Your task to perform on an android device: turn notification dots off Image 0: 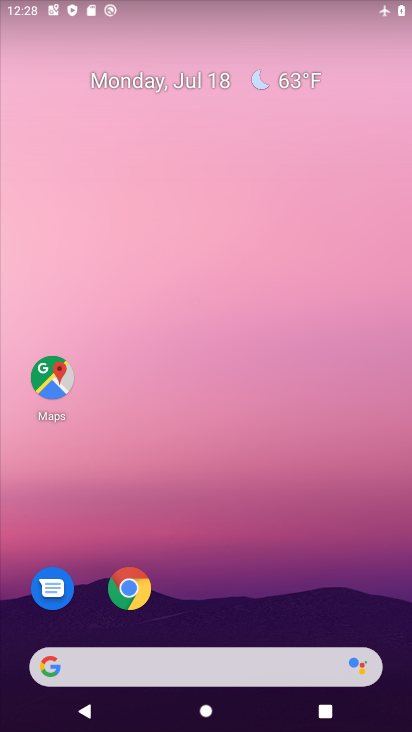
Step 0: drag from (234, 729) to (203, 98)
Your task to perform on an android device: turn notification dots off Image 1: 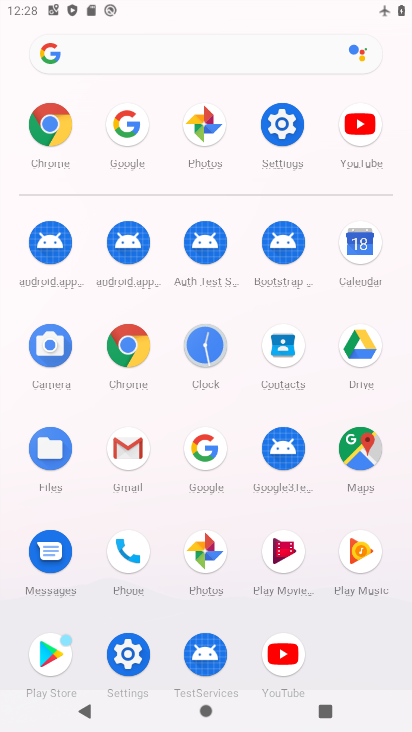
Step 1: click (281, 137)
Your task to perform on an android device: turn notification dots off Image 2: 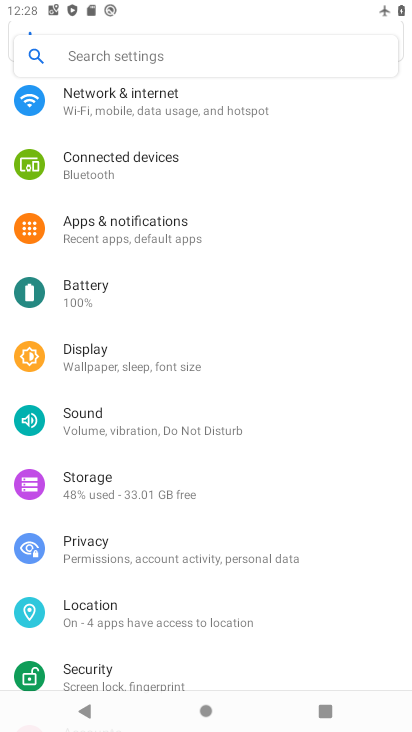
Step 2: click (154, 231)
Your task to perform on an android device: turn notification dots off Image 3: 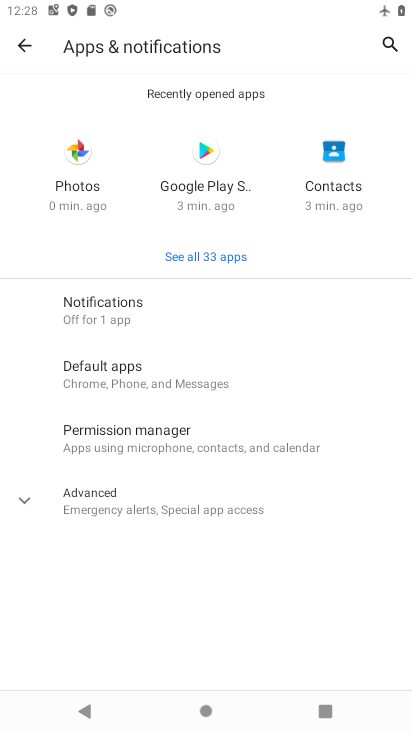
Step 3: click (122, 303)
Your task to perform on an android device: turn notification dots off Image 4: 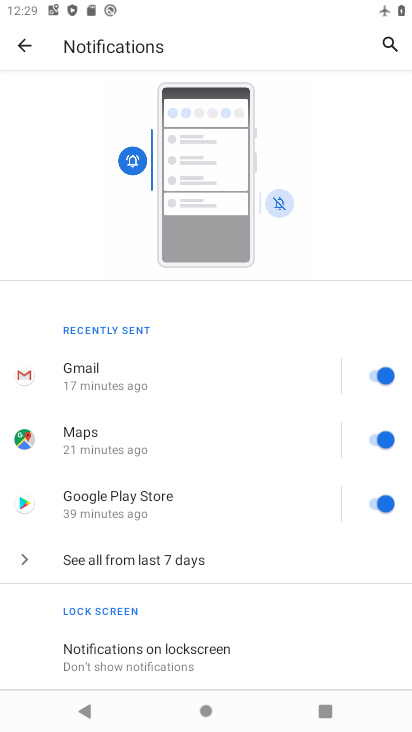
Step 4: drag from (246, 664) to (207, 350)
Your task to perform on an android device: turn notification dots off Image 5: 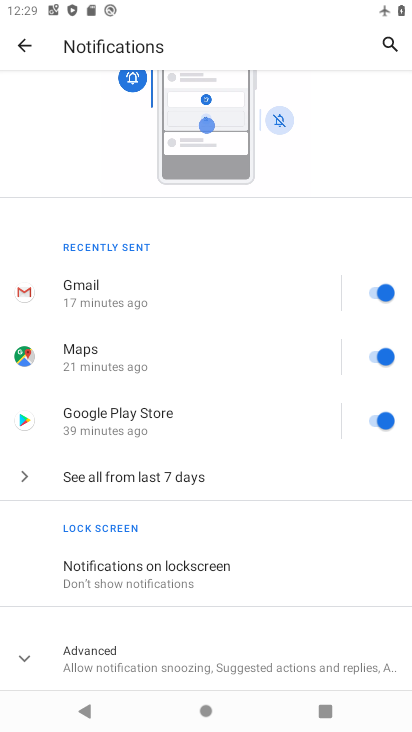
Step 5: click (228, 666)
Your task to perform on an android device: turn notification dots off Image 6: 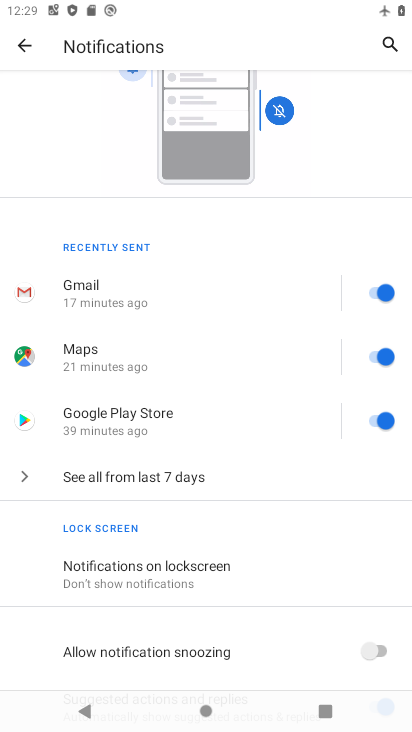
Step 6: drag from (283, 664) to (266, 388)
Your task to perform on an android device: turn notification dots off Image 7: 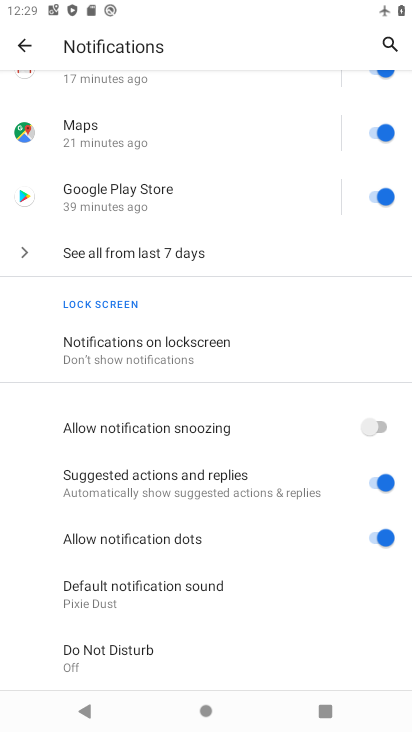
Step 7: click (374, 539)
Your task to perform on an android device: turn notification dots off Image 8: 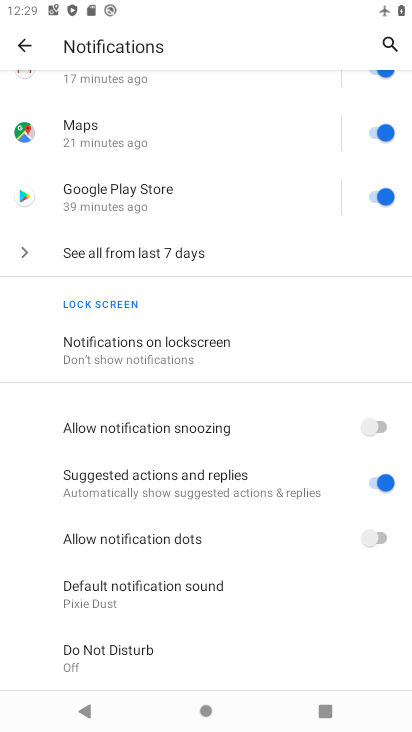
Step 8: task complete